Your task to perform on an android device: toggle location history Image 0: 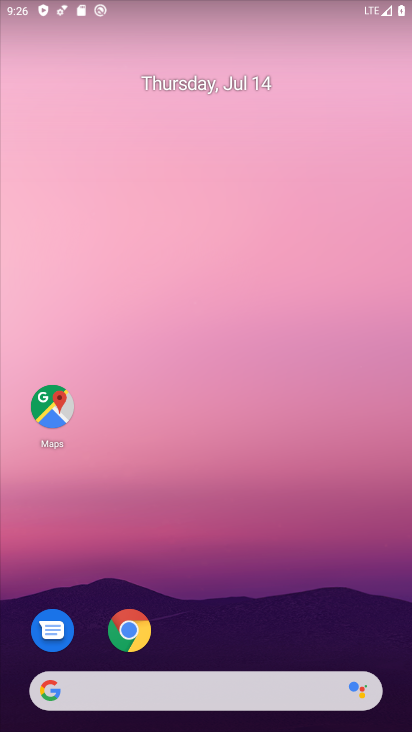
Step 0: drag from (203, 664) to (266, 50)
Your task to perform on an android device: toggle location history Image 1: 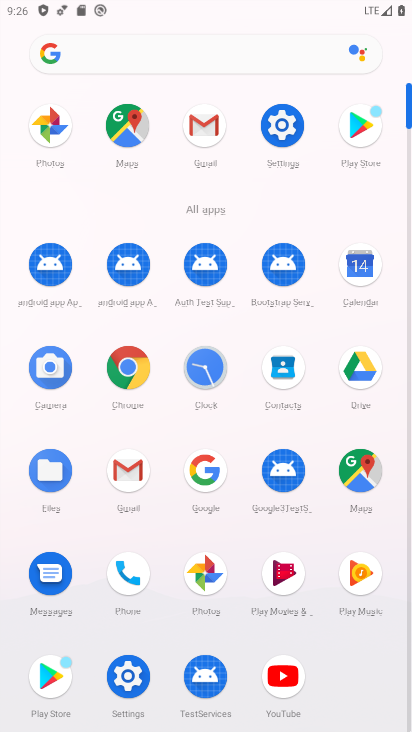
Step 1: click (125, 684)
Your task to perform on an android device: toggle location history Image 2: 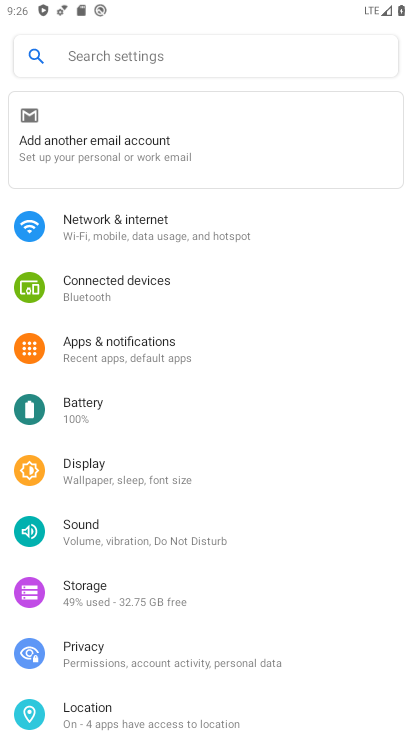
Step 2: click (108, 706)
Your task to perform on an android device: toggle location history Image 3: 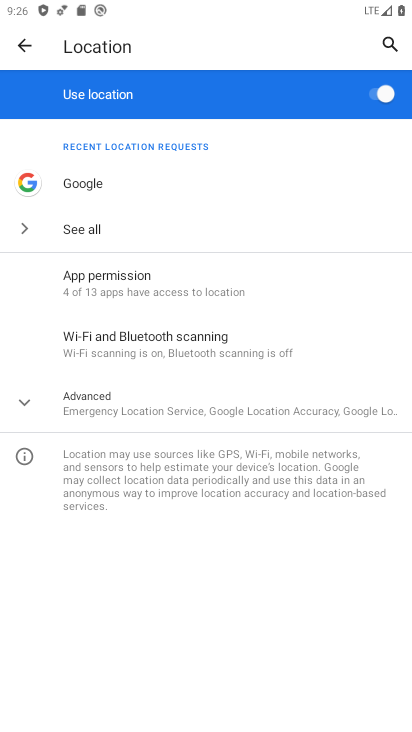
Step 3: click (177, 415)
Your task to perform on an android device: toggle location history Image 4: 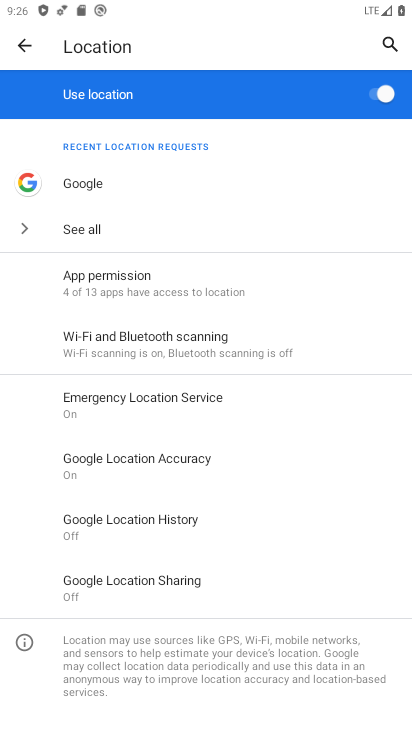
Step 4: click (189, 528)
Your task to perform on an android device: toggle location history Image 5: 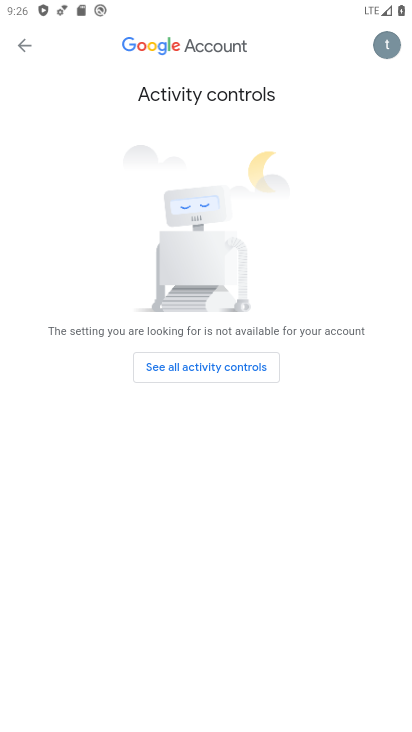
Step 5: task complete